Your task to perform on an android device: toggle improve location accuracy Image 0: 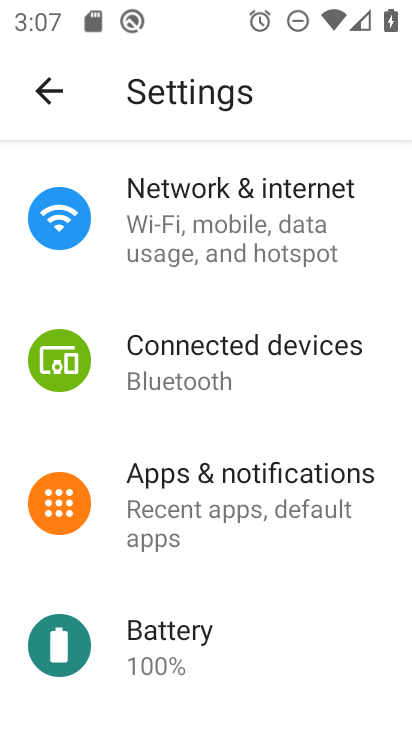
Step 0: drag from (325, 577) to (312, 346)
Your task to perform on an android device: toggle improve location accuracy Image 1: 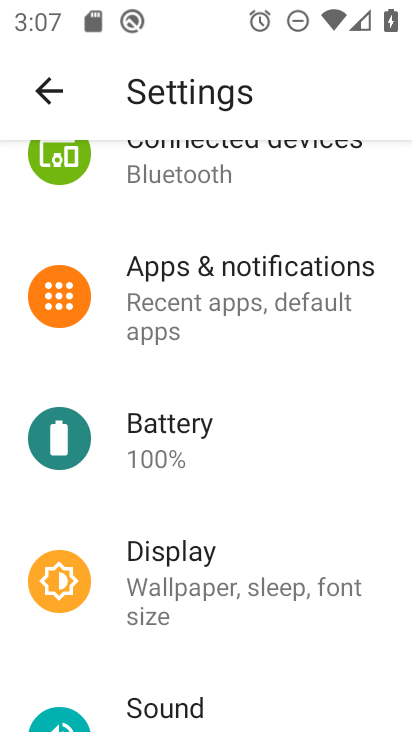
Step 1: drag from (323, 501) to (308, 322)
Your task to perform on an android device: toggle improve location accuracy Image 2: 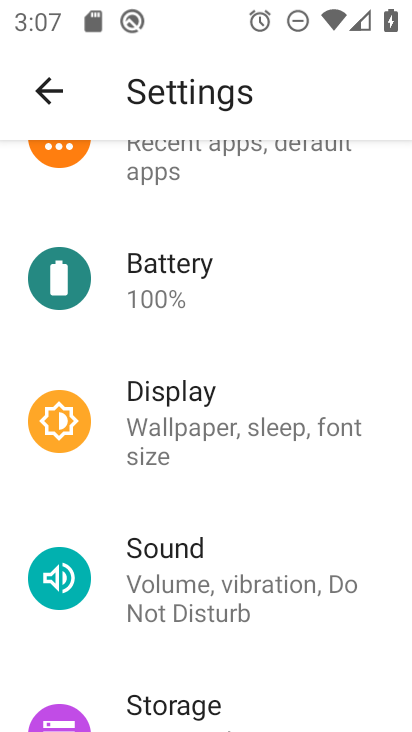
Step 2: drag from (290, 516) to (302, 378)
Your task to perform on an android device: toggle improve location accuracy Image 3: 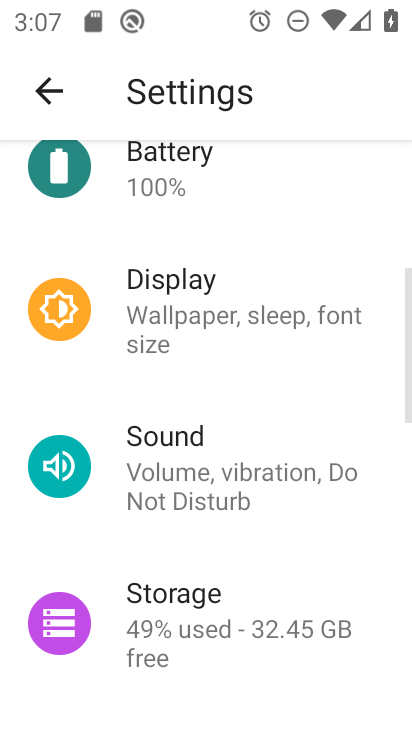
Step 3: drag from (306, 543) to (305, 390)
Your task to perform on an android device: toggle improve location accuracy Image 4: 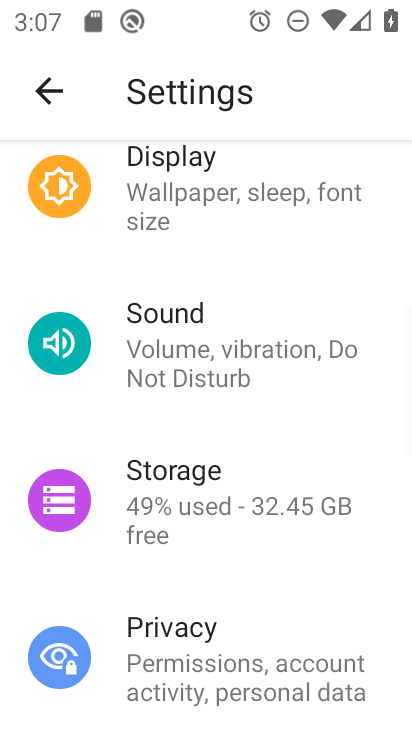
Step 4: drag from (346, 581) to (334, 411)
Your task to perform on an android device: toggle improve location accuracy Image 5: 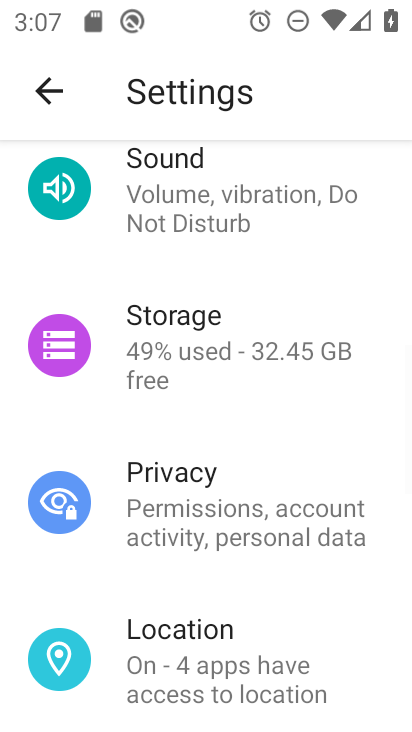
Step 5: drag from (336, 603) to (330, 427)
Your task to perform on an android device: toggle improve location accuracy Image 6: 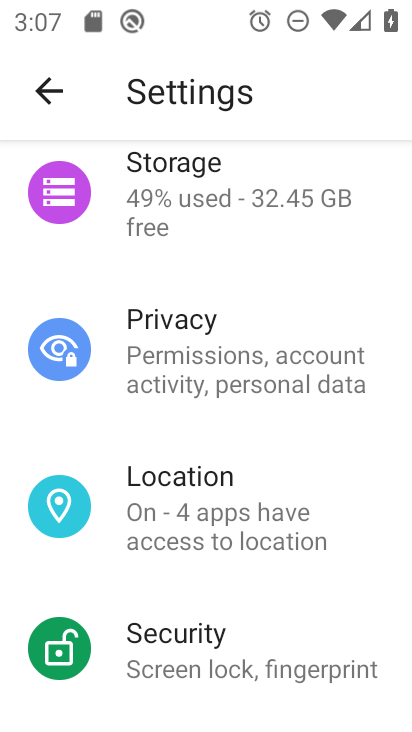
Step 6: drag from (353, 624) to (352, 487)
Your task to perform on an android device: toggle improve location accuracy Image 7: 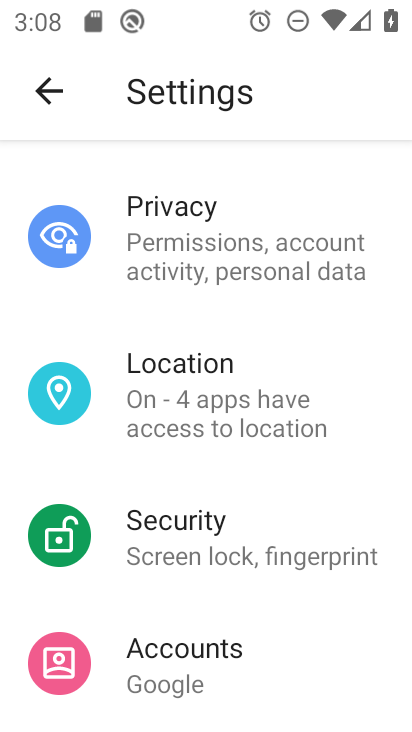
Step 7: drag from (352, 623) to (342, 478)
Your task to perform on an android device: toggle improve location accuracy Image 8: 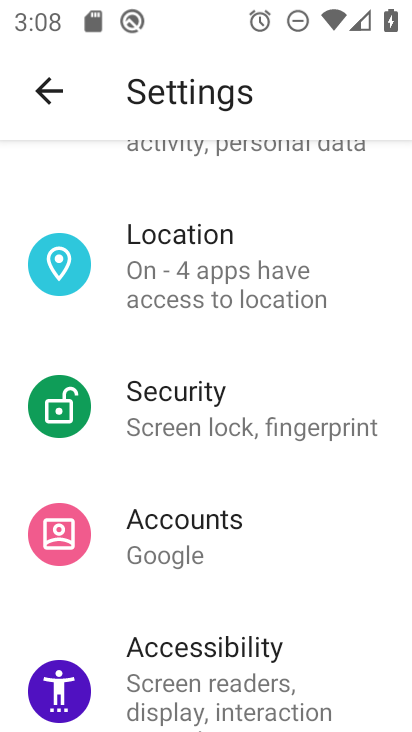
Step 8: drag from (344, 592) to (343, 449)
Your task to perform on an android device: toggle improve location accuracy Image 9: 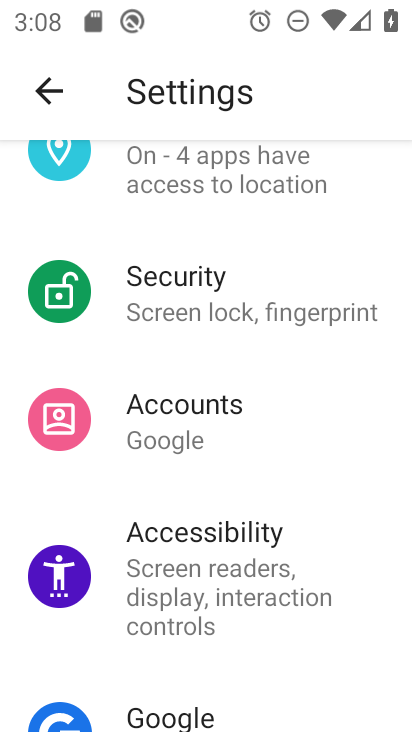
Step 9: drag from (354, 653) to (338, 458)
Your task to perform on an android device: toggle improve location accuracy Image 10: 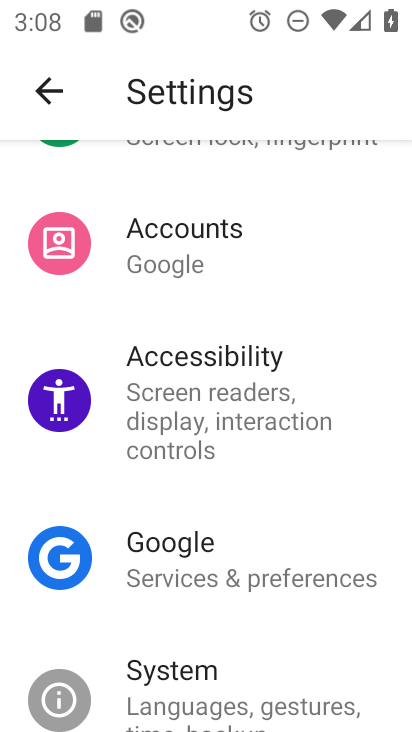
Step 10: drag from (341, 651) to (315, 490)
Your task to perform on an android device: toggle improve location accuracy Image 11: 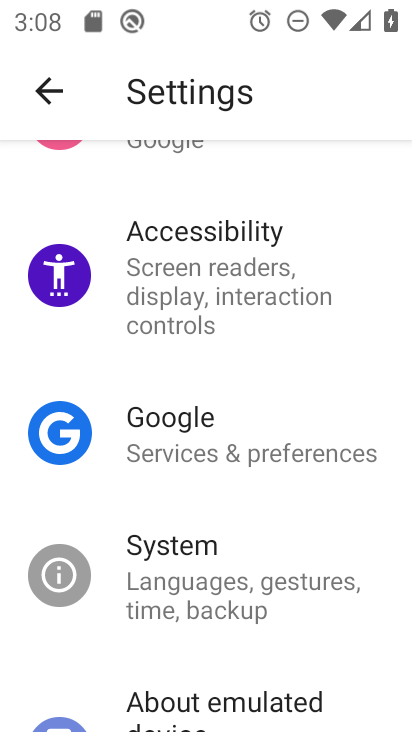
Step 11: drag from (340, 642) to (342, 476)
Your task to perform on an android device: toggle improve location accuracy Image 12: 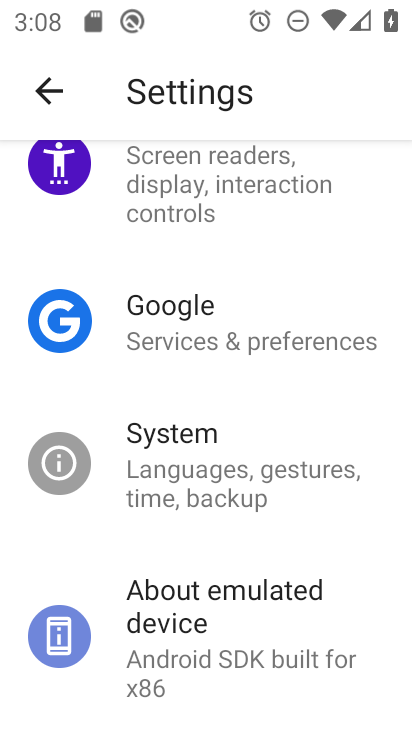
Step 12: drag from (330, 396) to (338, 546)
Your task to perform on an android device: toggle improve location accuracy Image 13: 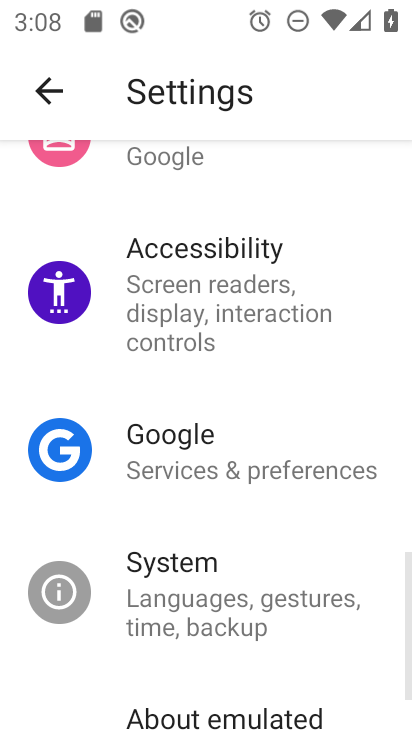
Step 13: drag from (319, 356) to (329, 486)
Your task to perform on an android device: toggle improve location accuracy Image 14: 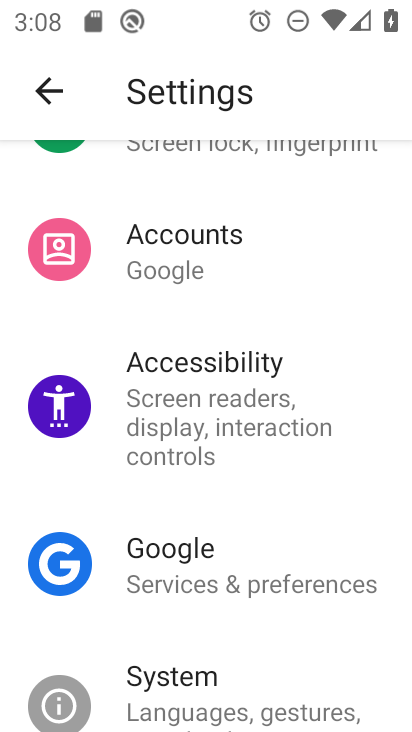
Step 14: drag from (323, 296) to (327, 433)
Your task to perform on an android device: toggle improve location accuracy Image 15: 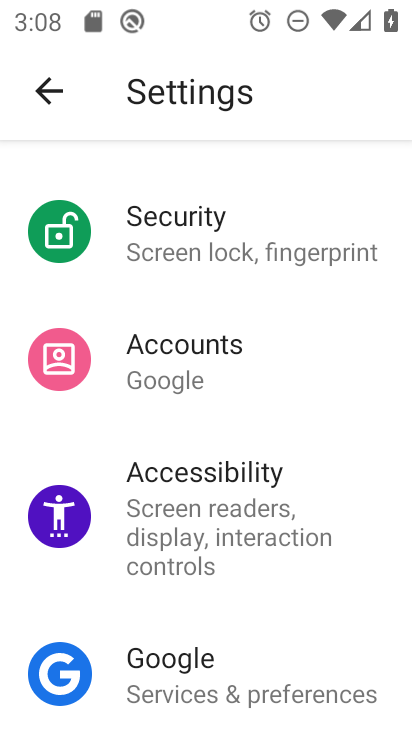
Step 15: drag from (308, 214) to (314, 385)
Your task to perform on an android device: toggle improve location accuracy Image 16: 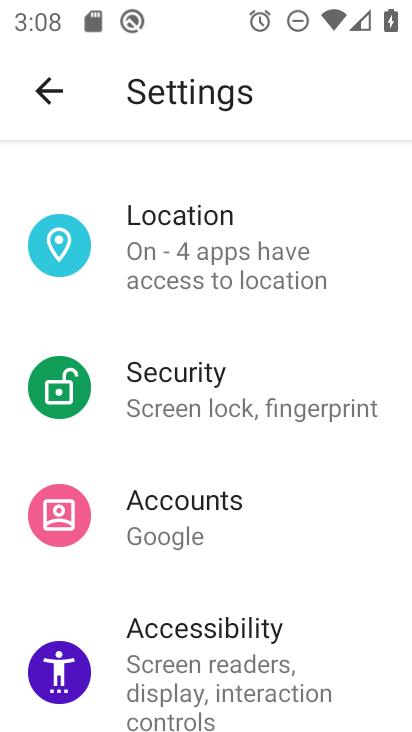
Step 16: drag from (341, 301) to (333, 508)
Your task to perform on an android device: toggle improve location accuracy Image 17: 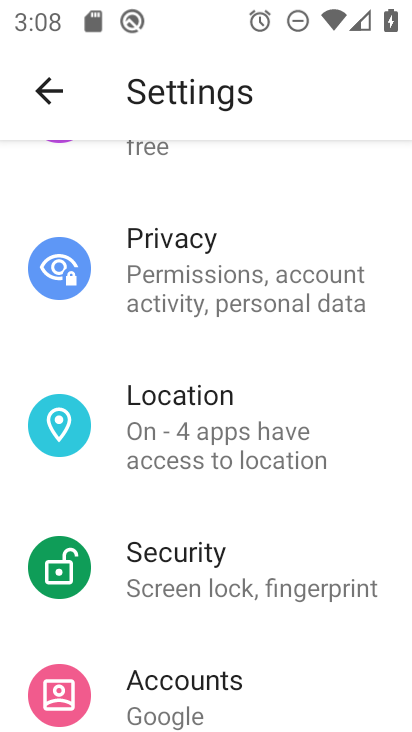
Step 17: drag from (340, 195) to (334, 465)
Your task to perform on an android device: toggle improve location accuracy Image 18: 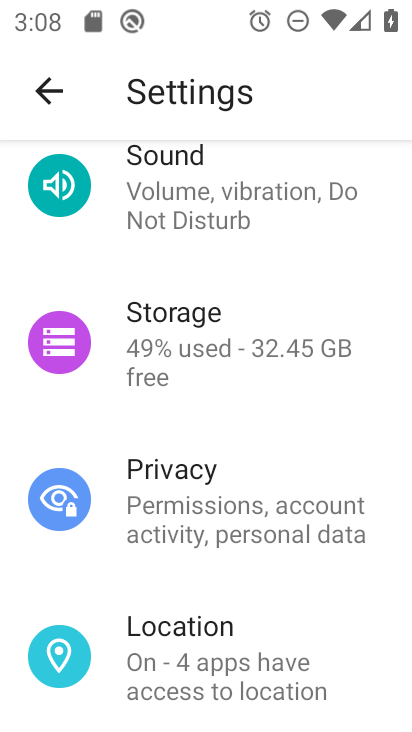
Step 18: drag from (311, 267) to (301, 455)
Your task to perform on an android device: toggle improve location accuracy Image 19: 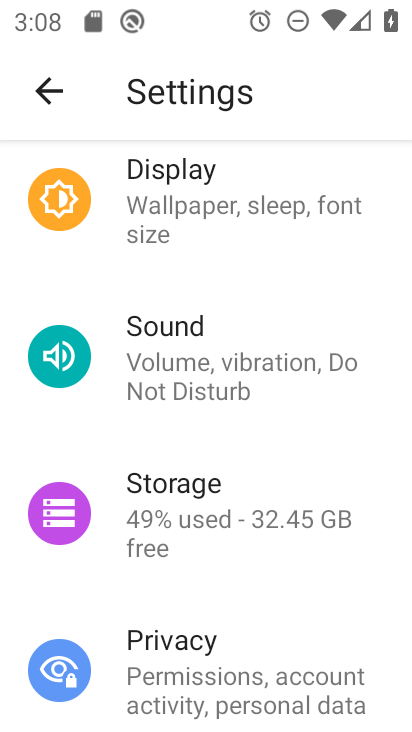
Step 19: drag from (335, 257) to (331, 468)
Your task to perform on an android device: toggle improve location accuracy Image 20: 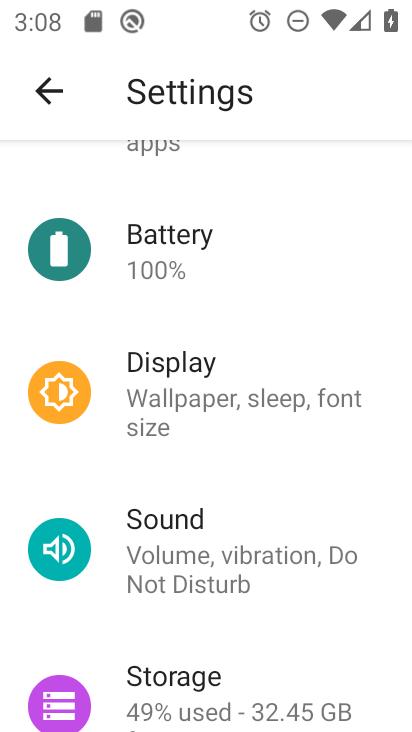
Step 20: drag from (334, 266) to (346, 492)
Your task to perform on an android device: toggle improve location accuracy Image 21: 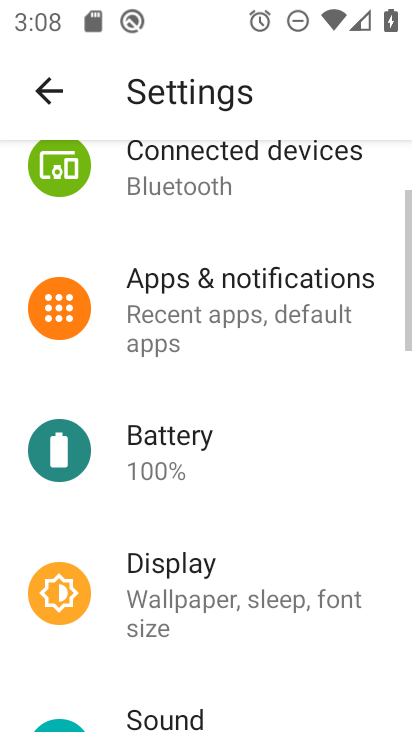
Step 21: drag from (345, 493) to (341, 313)
Your task to perform on an android device: toggle improve location accuracy Image 22: 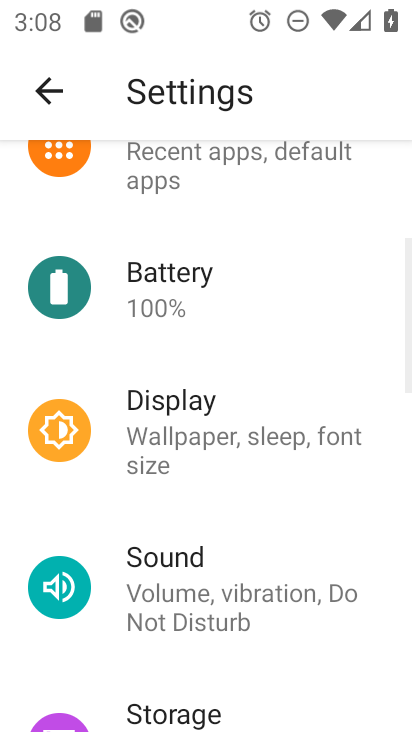
Step 22: drag from (361, 524) to (347, 336)
Your task to perform on an android device: toggle improve location accuracy Image 23: 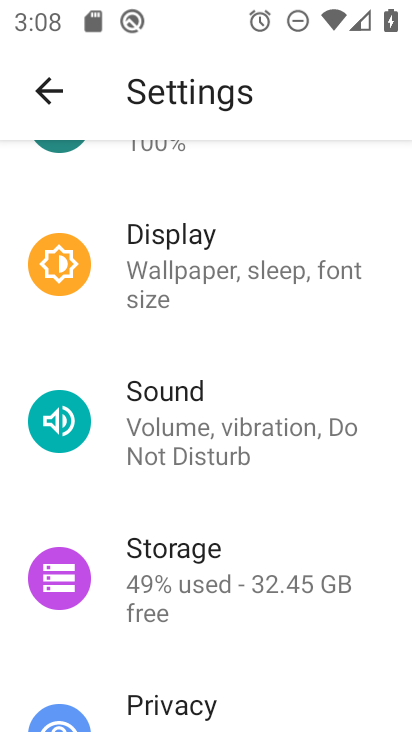
Step 23: drag from (355, 535) to (346, 338)
Your task to perform on an android device: toggle improve location accuracy Image 24: 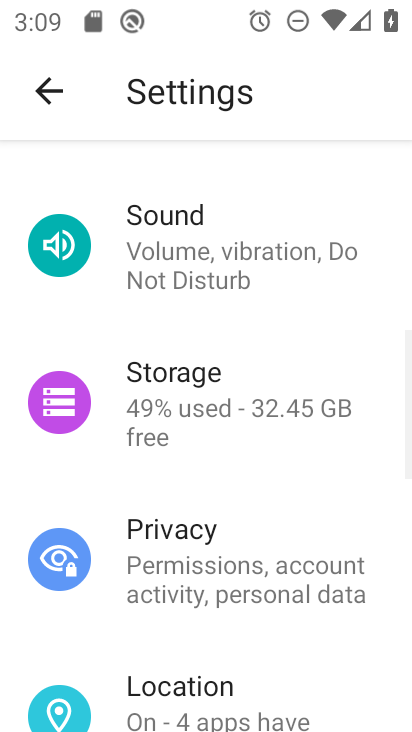
Step 24: drag from (338, 521) to (321, 301)
Your task to perform on an android device: toggle improve location accuracy Image 25: 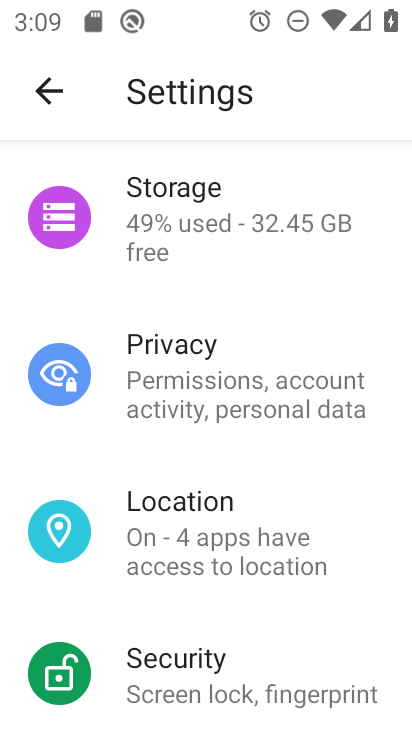
Step 25: click (289, 547)
Your task to perform on an android device: toggle improve location accuracy Image 26: 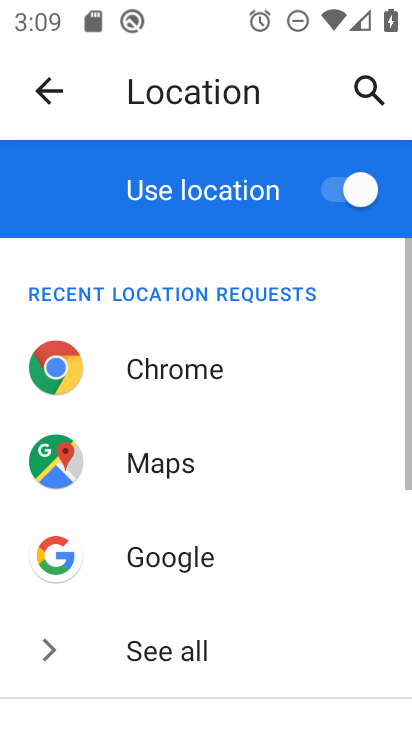
Step 26: drag from (297, 592) to (294, 343)
Your task to perform on an android device: toggle improve location accuracy Image 27: 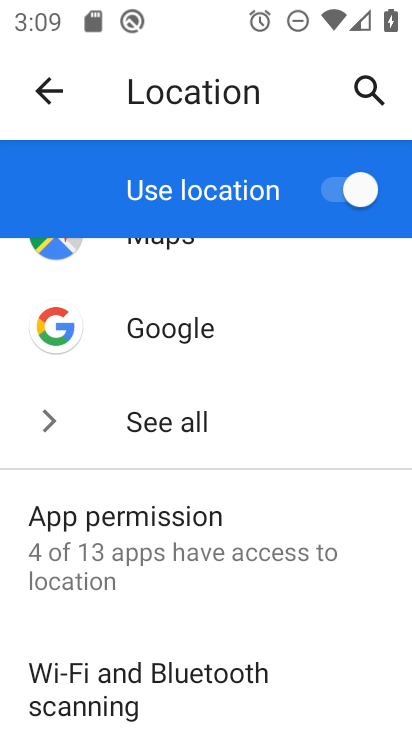
Step 27: drag from (299, 613) to (300, 365)
Your task to perform on an android device: toggle improve location accuracy Image 28: 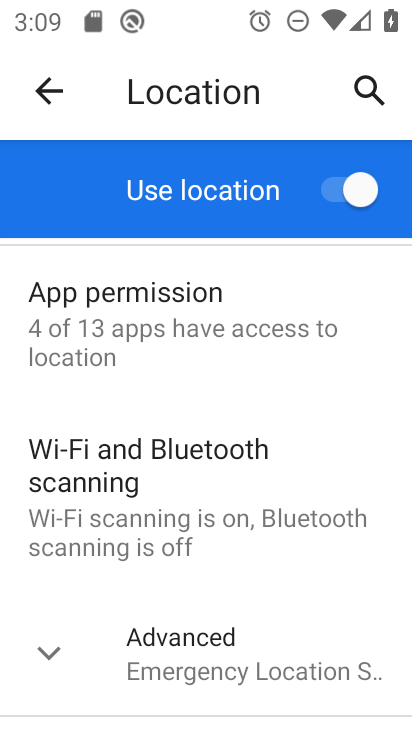
Step 28: click (276, 661)
Your task to perform on an android device: toggle improve location accuracy Image 29: 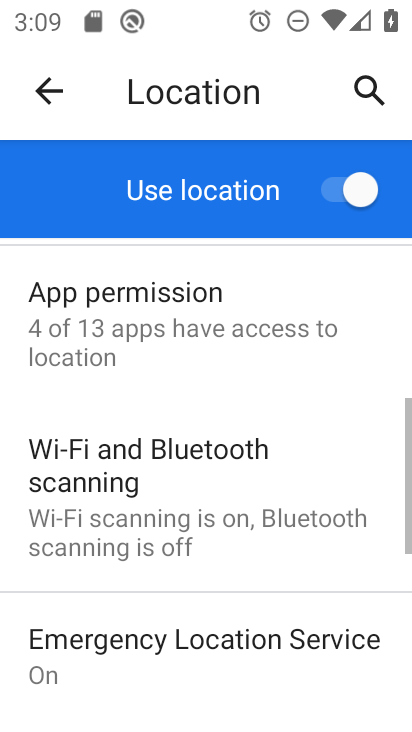
Step 29: drag from (290, 631) to (282, 464)
Your task to perform on an android device: toggle improve location accuracy Image 30: 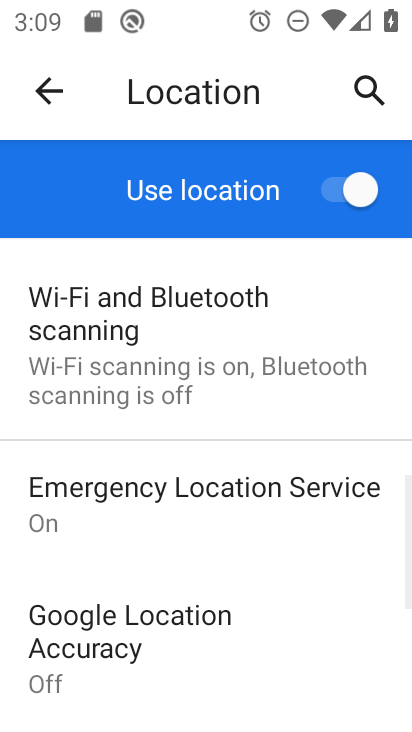
Step 30: drag from (314, 629) to (318, 445)
Your task to perform on an android device: toggle improve location accuracy Image 31: 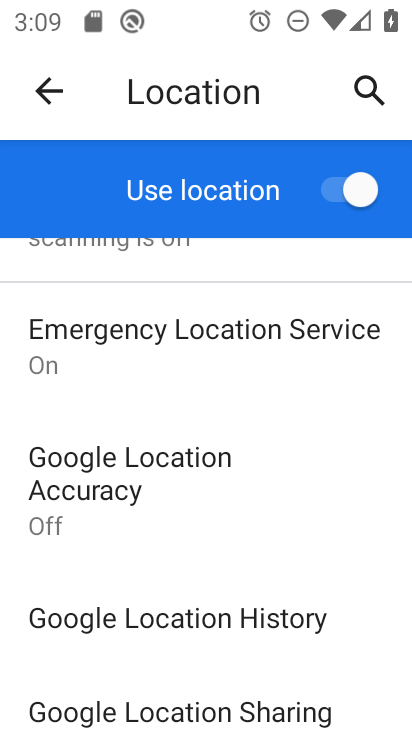
Step 31: click (136, 494)
Your task to perform on an android device: toggle improve location accuracy Image 32: 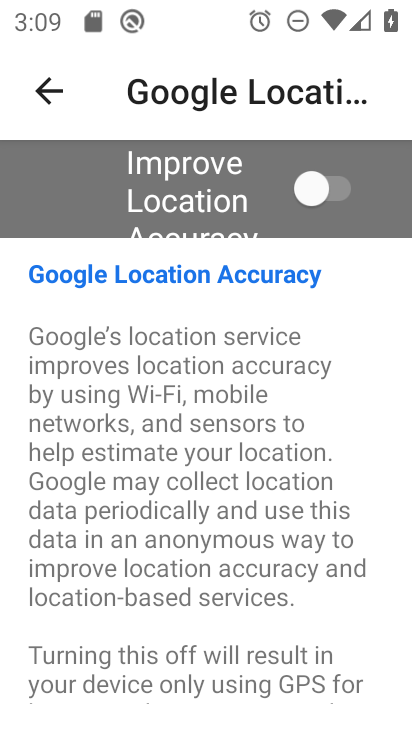
Step 32: click (307, 207)
Your task to perform on an android device: toggle improve location accuracy Image 33: 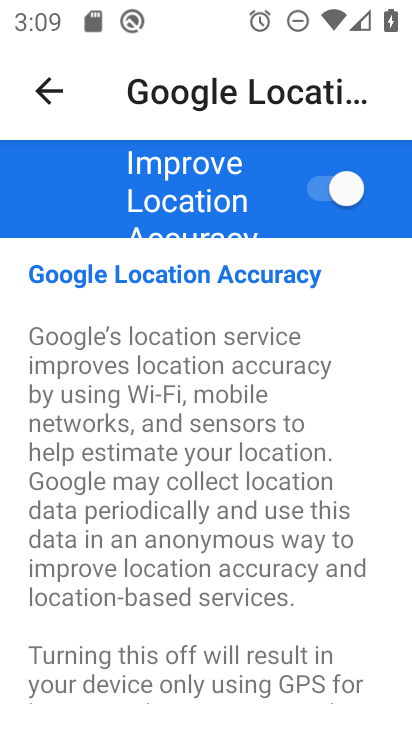
Step 33: task complete